Your task to perform on an android device: set an alarm Image 0: 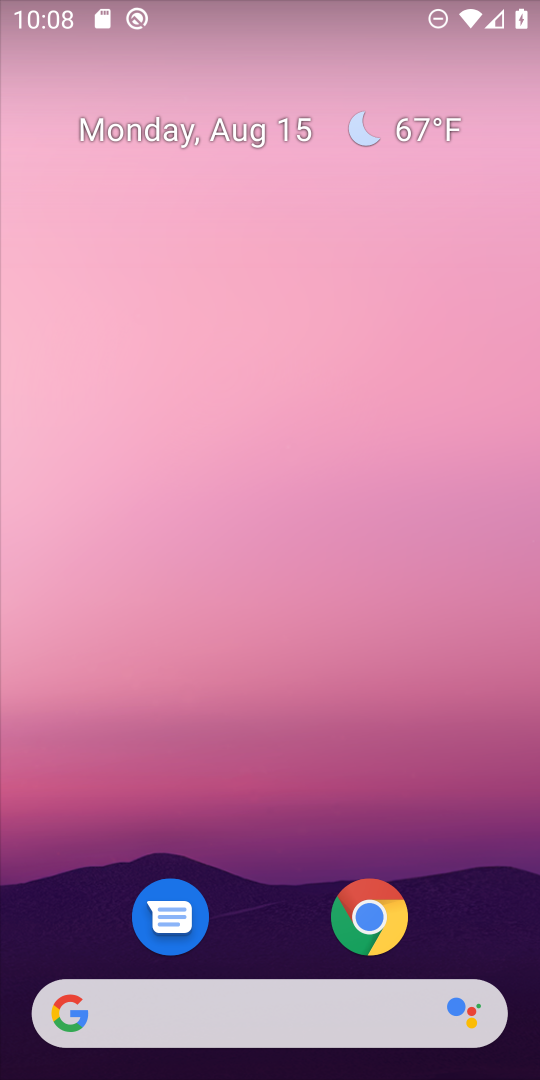
Step 0: drag from (275, 718) to (298, 1)
Your task to perform on an android device: set an alarm Image 1: 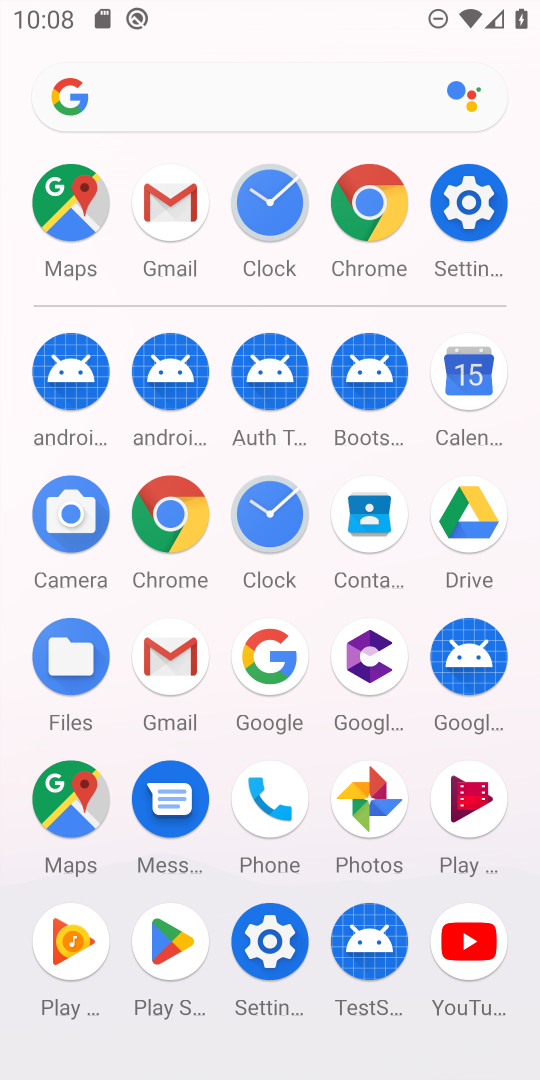
Step 1: click (261, 209)
Your task to perform on an android device: set an alarm Image 2: 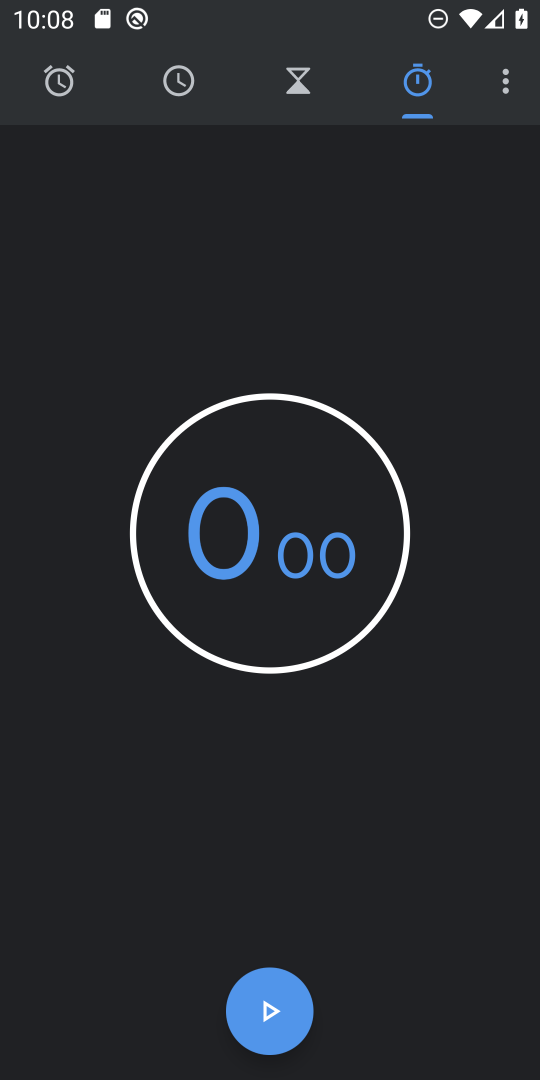
Step 2: click (57, 76)
Your task to perform on an android device: set an alarm Image 3: 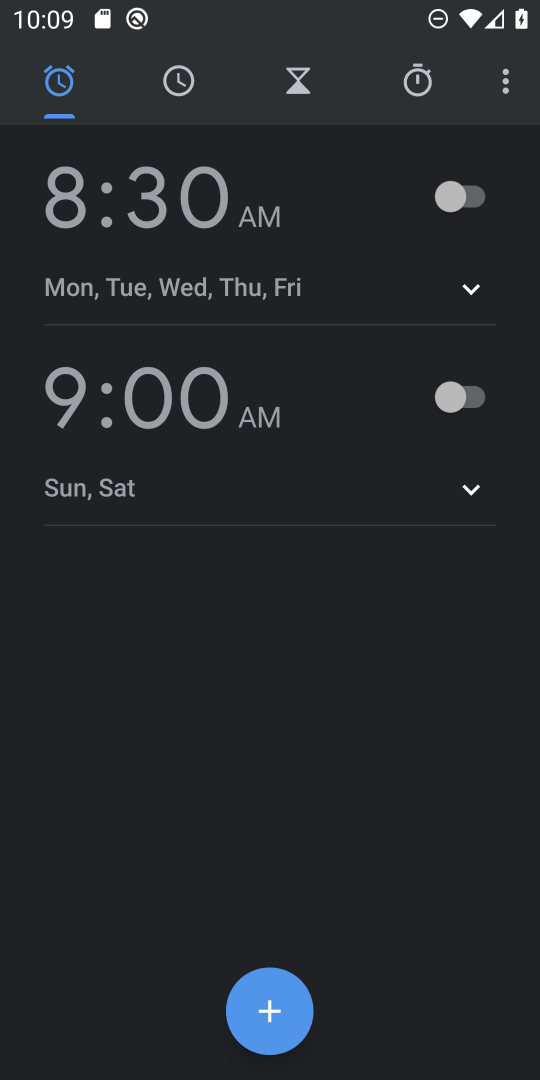
Step 3: click (267, 996)
Your task to perform on an android device: set an alarm Image 4: 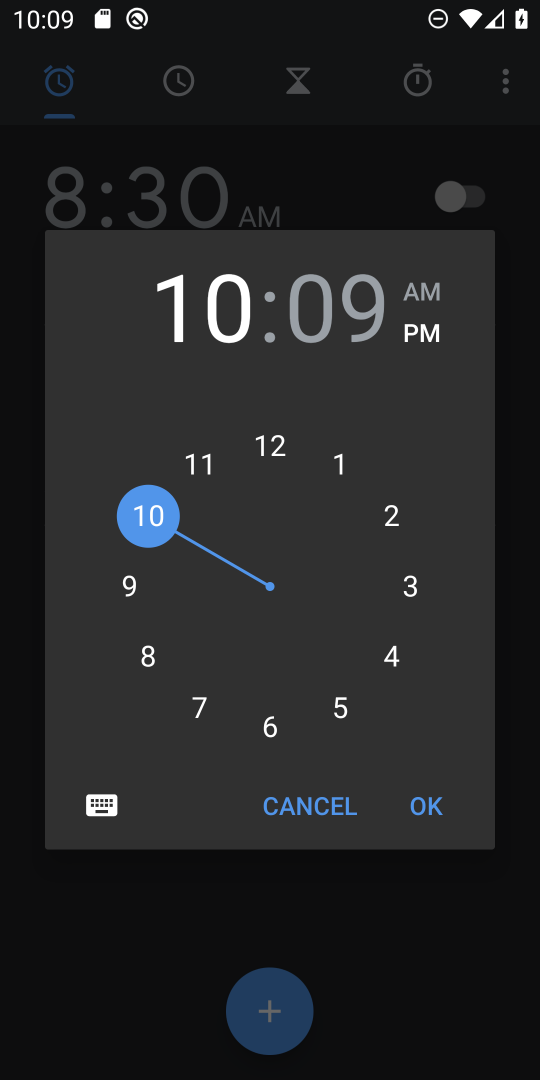
Step 4: click (344, 325)
Your task to perform on an android device: set an alarm Image 5: 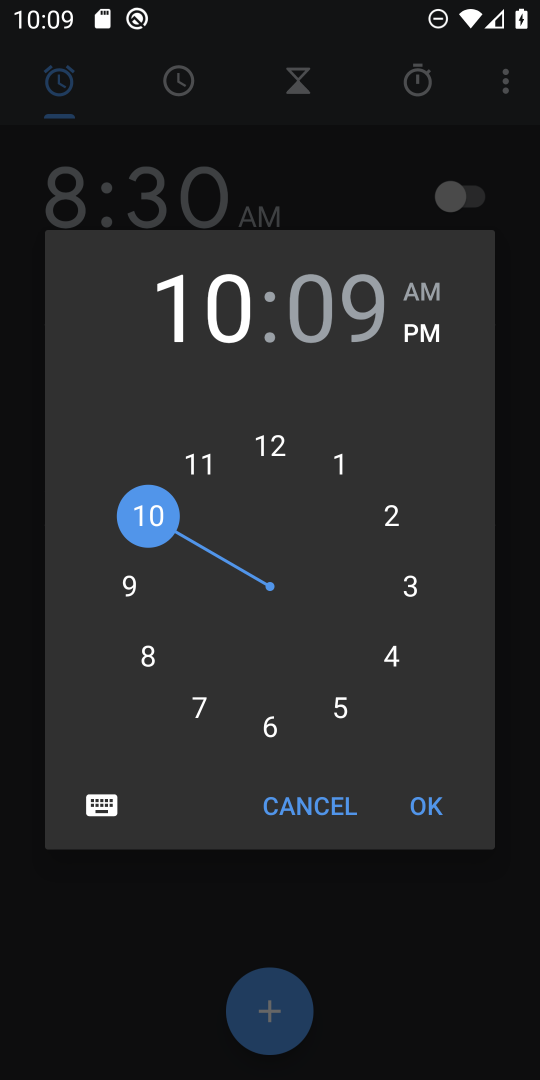
Step 5: click (344, 323)
Your task to perform on an android device: set an alarm Image 6: 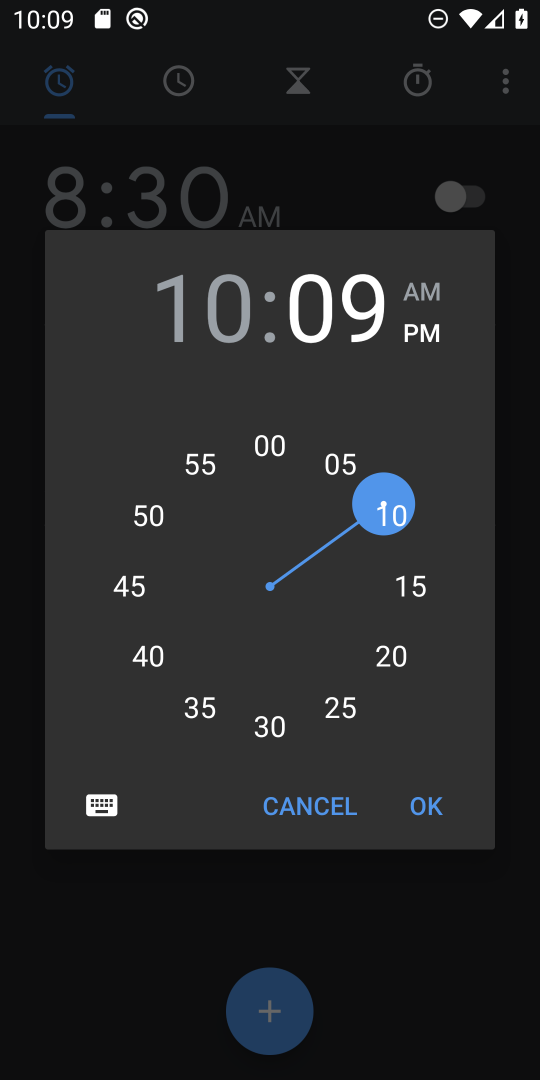
Step 6: click (267, 722)
Your task to perform on an android device: set an alarm Image 7: 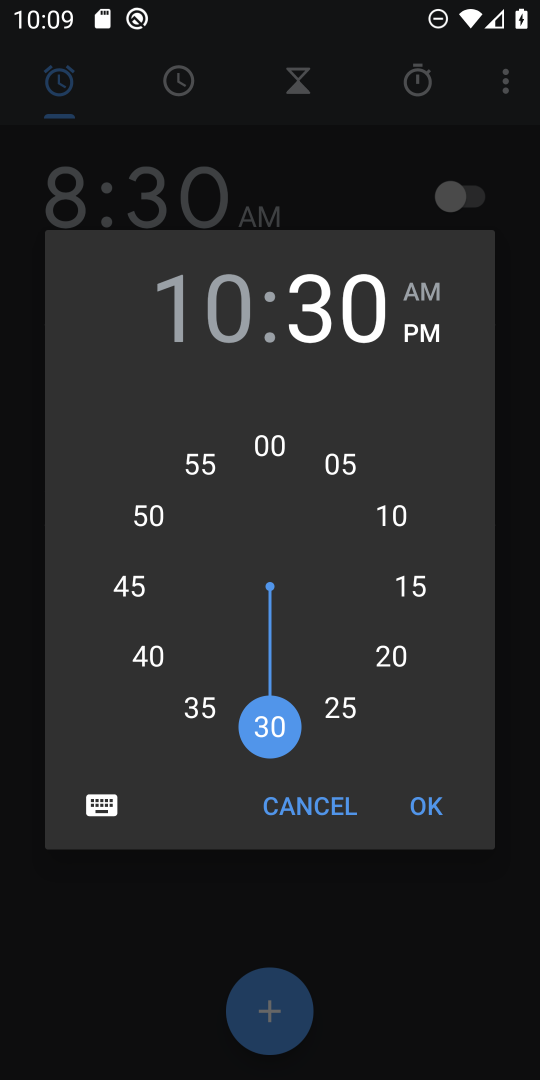
Step 7: click (421, 804)
Your task to perform on an android device: set an alarm Image 8: 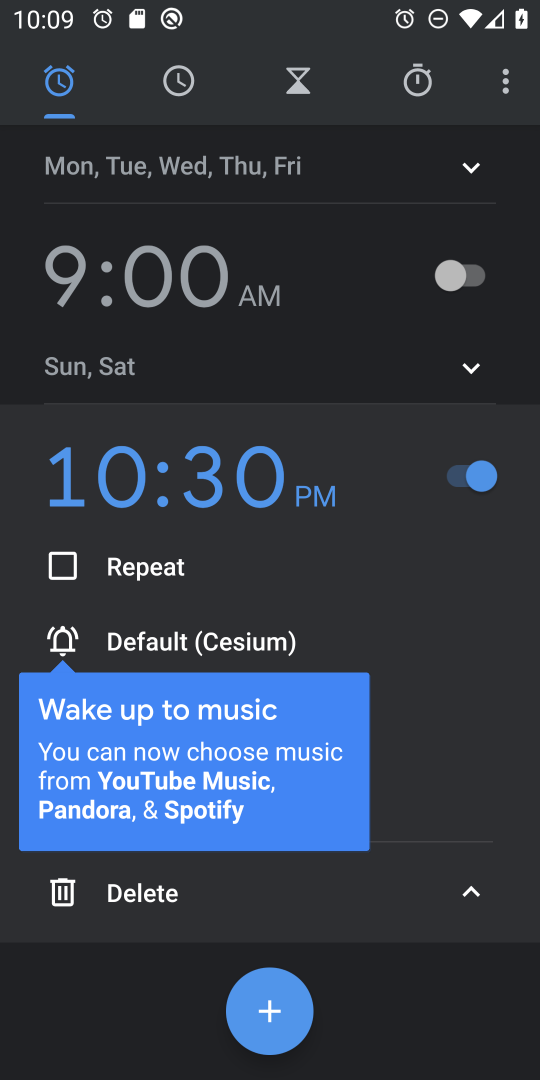
Step 8: task complete